Your task to perform on an android device: toggle priority inbox in the gmail app Image 0: 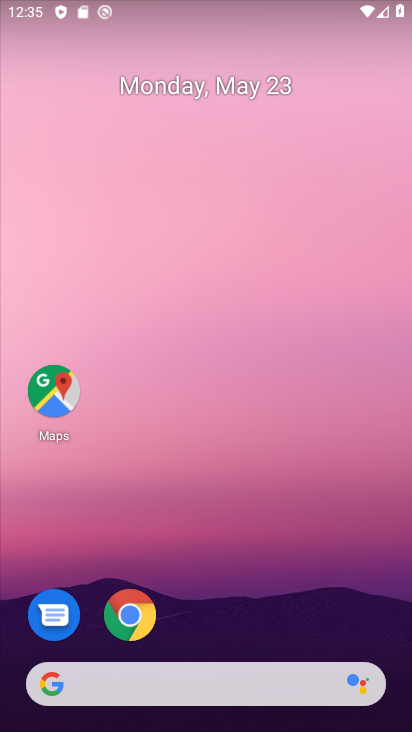
Step 0: drag from (211, 722) to (211, 83)
Your task to perform on an android device: toggle priority inbox in the gmail app Image 1: 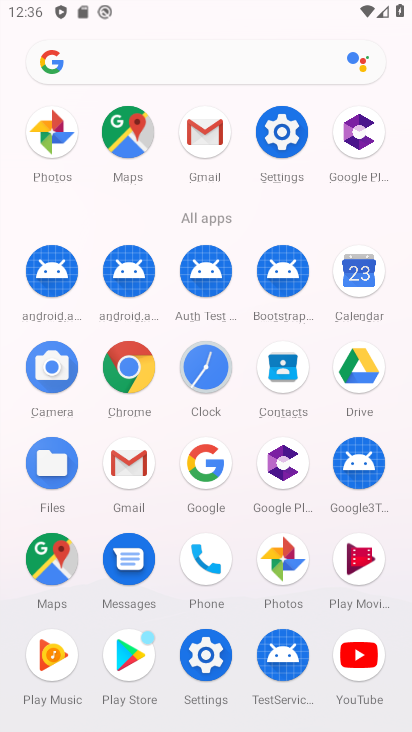
Step 1: click (129, 464)
Your task to perform on an android device: toggle priority inbox in the gmail app Image 2: 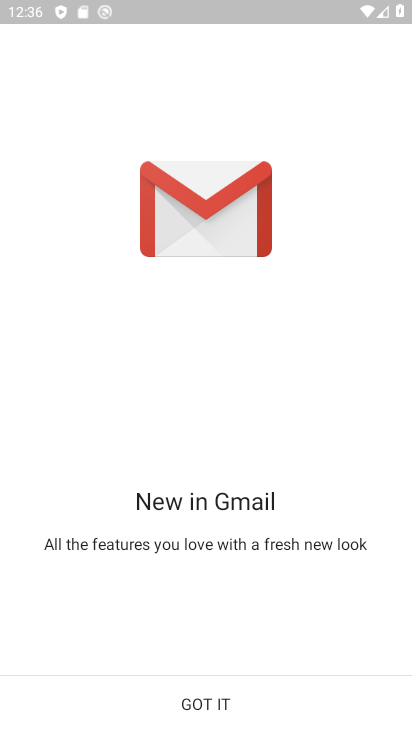
Step 2: click (209, 696)
Your task to perform on an android device: toggle priority inbox in the gmail app Image 3: 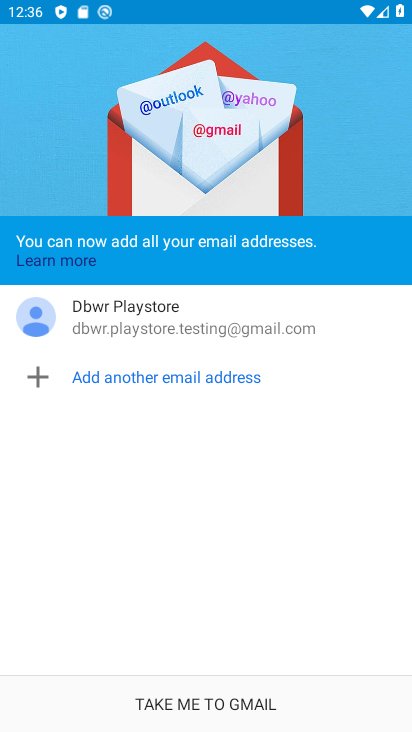
Step 3: click (162, 698)
Your task to perform on an android device: toggle priority inbox in the gmail app Image 4: 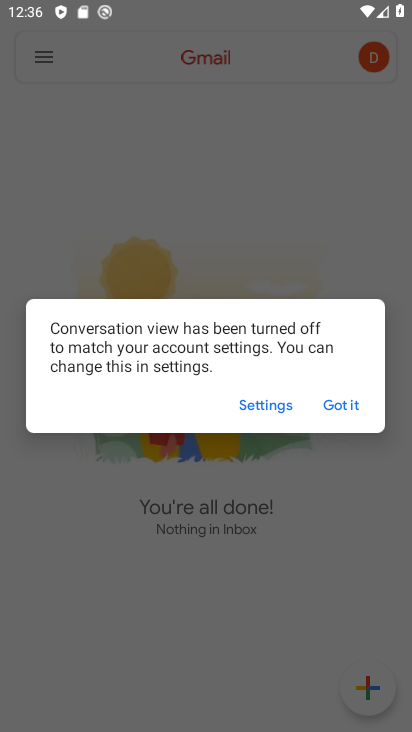
Step 4: click (344, 404)
Your task to perform on an android device: toggle priority inbox in the gmail app Image 5: 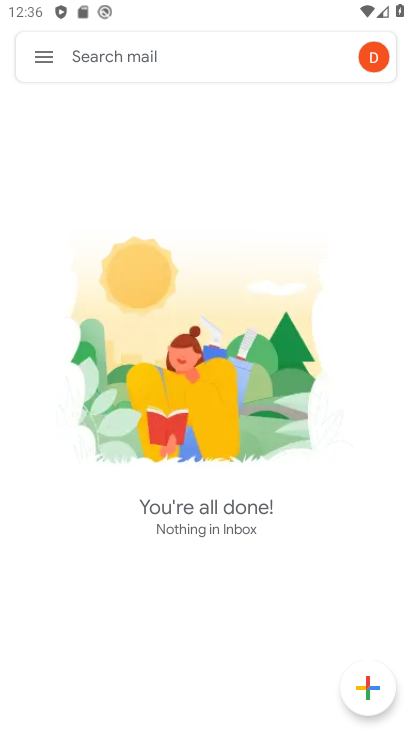
Step 5: click (42, 54)
Your task to perform on an android device: toggle priority inbox in the gmail app Image 6: 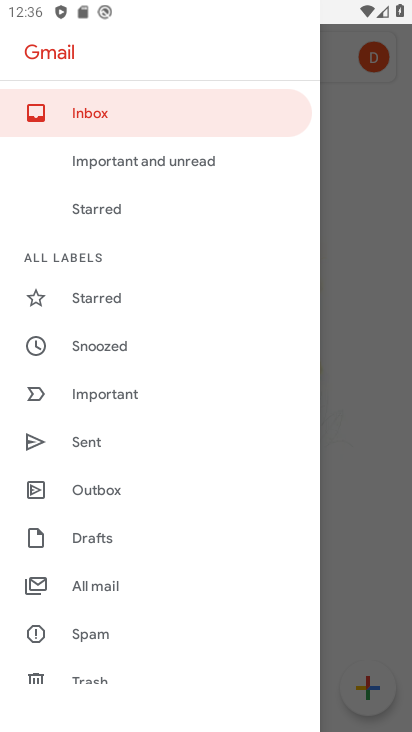
Step 6: drag from (85, 663) to (86, 201)
Your task to perform on an android device: toggle priority inbox in the gmail app Image 7: 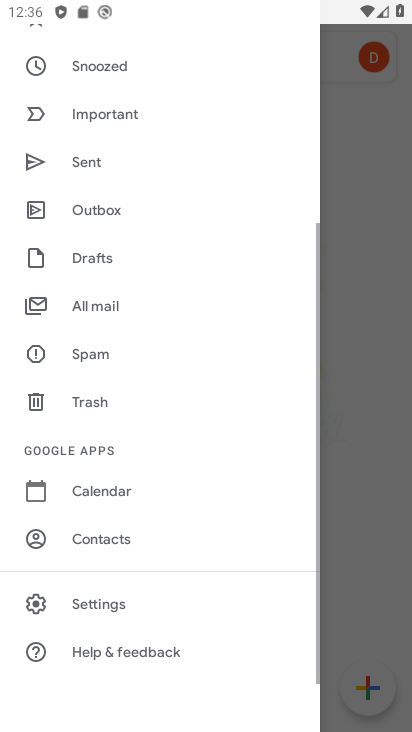
Step 7: click (94, 606)
Your task to perform on an android device: toggle priority inbox in the gmail app Image 8: 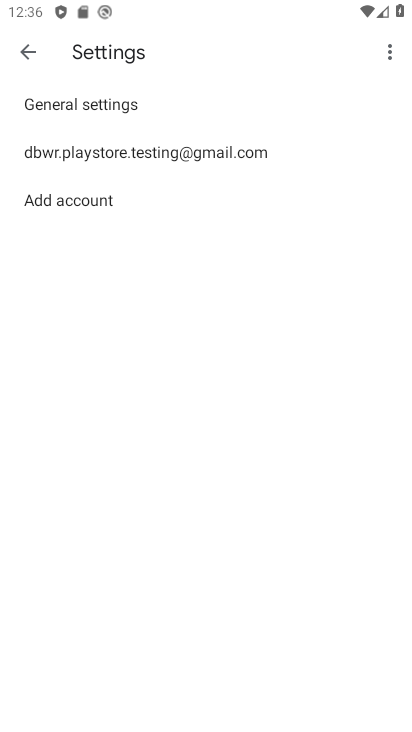
Step 8: click (72, 147)
Your task to perform on an android device: toggle priority inbox in the gmail app Image 9: 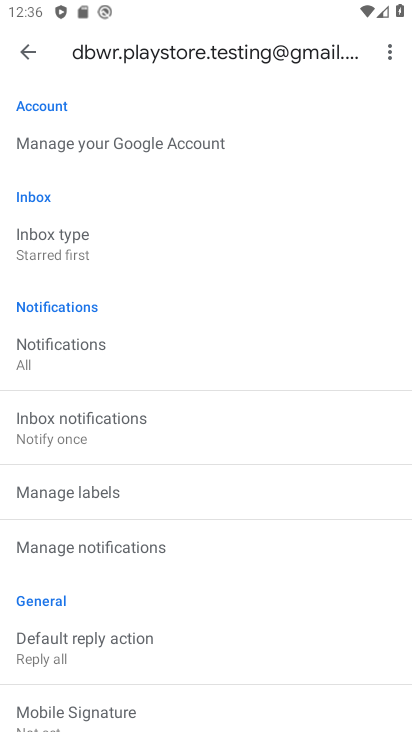
Step 9: click (45, 252)
Your task to perform on an android device: toggle priority inbox in the gmail app Image 10: 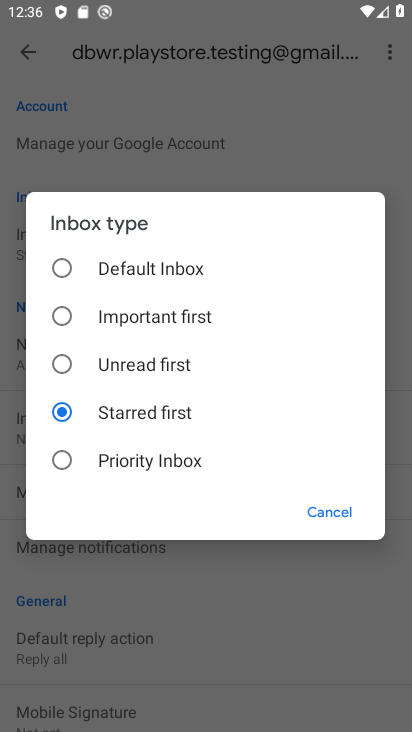
Step 10: click (63, 461)
Your task to perform on an android device: toggle priority inbox in the gmail app Image 11: 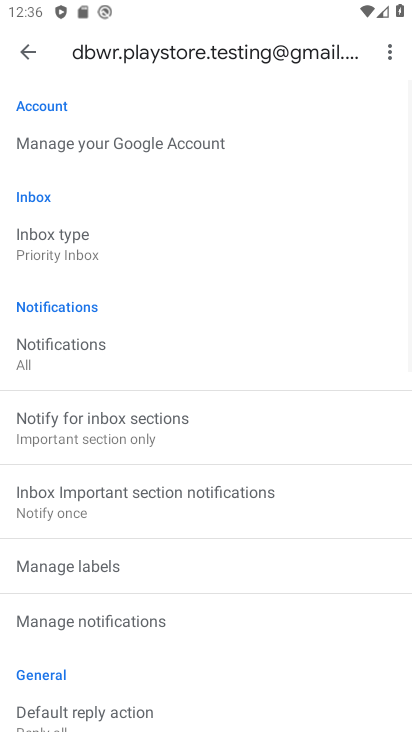
Step 11: task complete